Your task to perform on an android device: Open location settings Image 0: 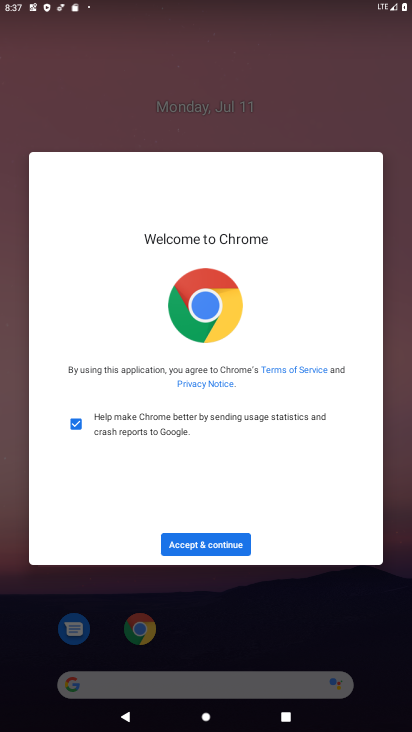
Step 0: drag from (295, 3) to (262, 569)
Your task to perform on an android device: Open location settings Image 1: 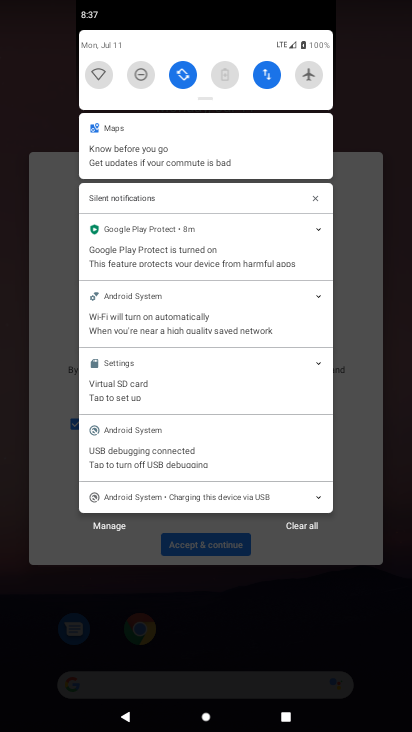
Step 1: drag from (200, 51) to (210, 620)
Your task to perform on an android device: Open location settings Image 2: 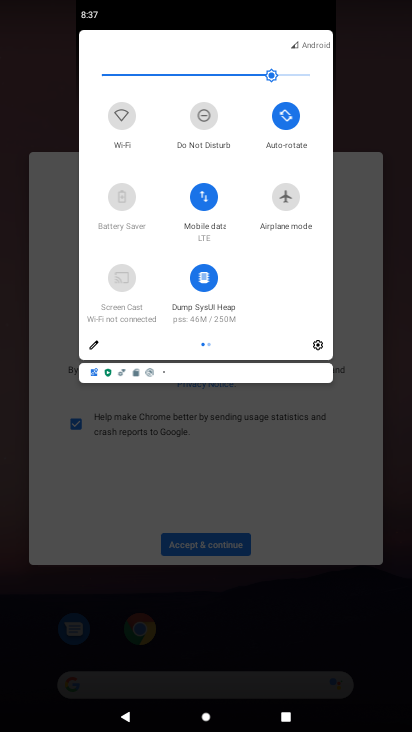
Step 2: click (316, 353)
Your task to perform on an android device: Open location settings Image 3: 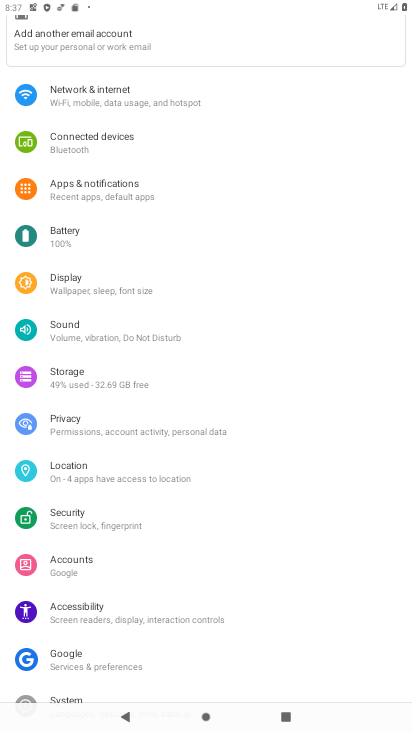
Step 3: click (82, 469)
Your task to perform on an android device: Open location settings Image 4: 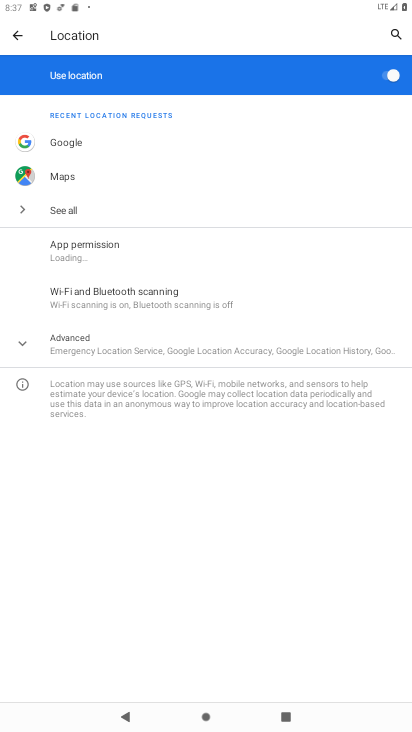
Step 4: task complete